Your task to perform on an android device: turn off notifications in google photos Image 0: 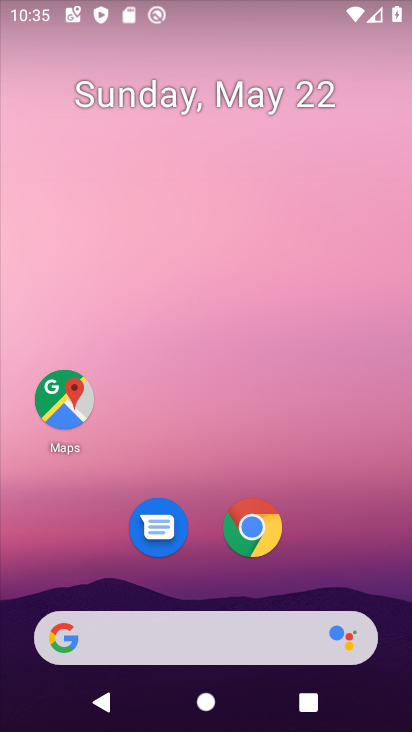
Step 0: drag from (373, 572) to (339, 145)
Your task to perform on an android device: turn off notifications in google photos Image 1: 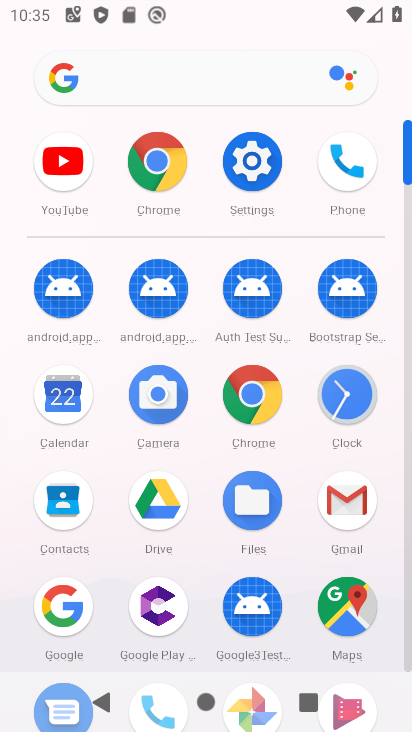
Step 1: click (412, 661)
Your task to perform on an android device: turn off notifications in google photos Image 2: 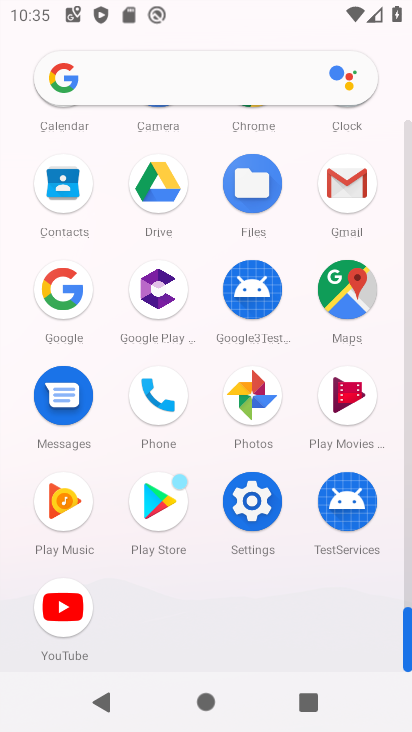
Step 2: click (166, 516)
Your task to perform on an android device: turn off notifications in google photos Image 3: 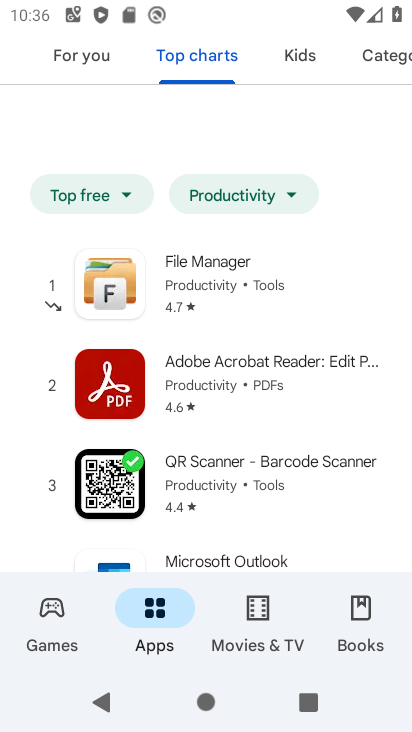
Step 3: press home button
Your task to perform on an android device: turn off notifications in google photos Image 4: 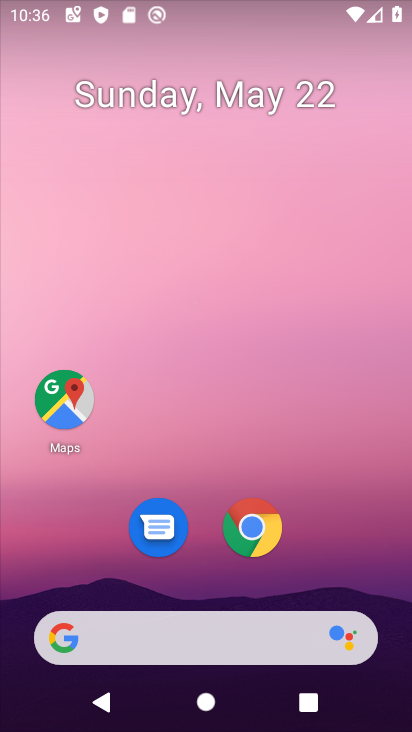
Step 4: drag from (328, 572) to (332, 203)
Your task to perform on an android device: turn off notifications in google photos Image 5: 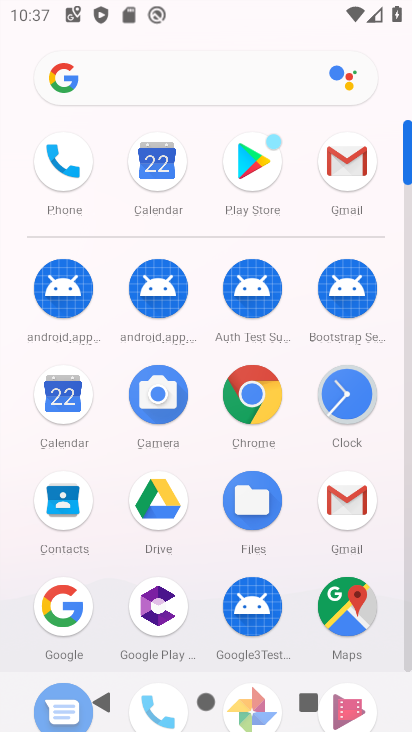
Step 5: click (404, 666)
Your task to perform on an android device: turn off notifications in google photos Image 6: 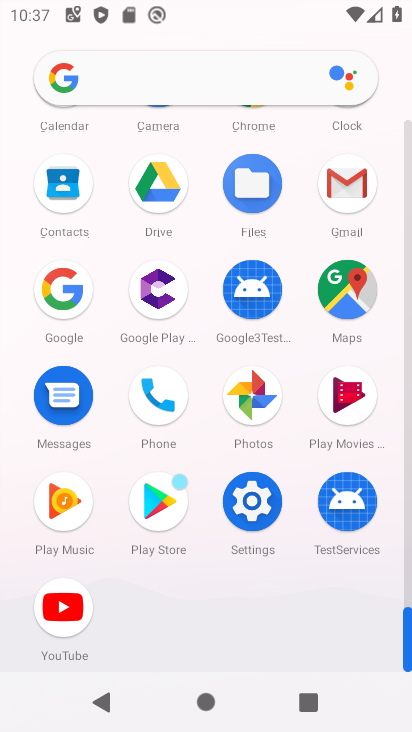
Step 6: click (263, 412)
Your task to perform on an android device: turn off notifications in google photos Image 7: 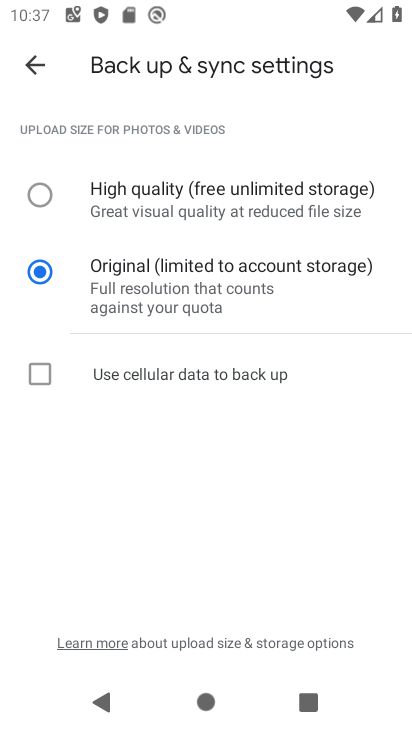
Step 7: click (19, 63)
Your task to perform on an android device: turn off notifications in google photos Image 8: 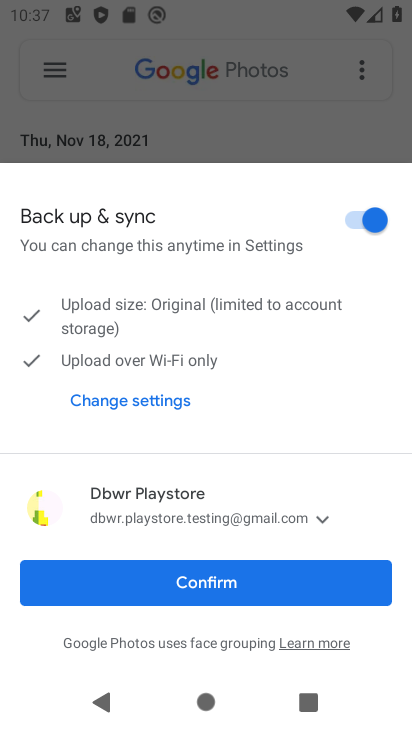
Step 8: click (170, 584)
Your task to perform on an android device: turn off notifications in google photos Image 9: 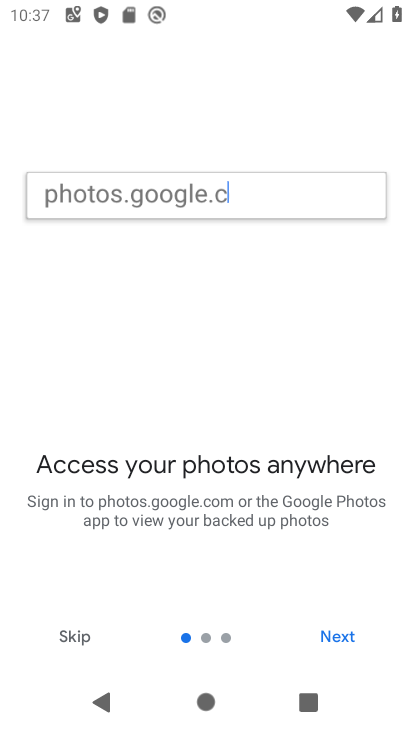
Step 9: click (336, 642)
Your task to perform on an android device: turn off notifications in google photos Image 10: 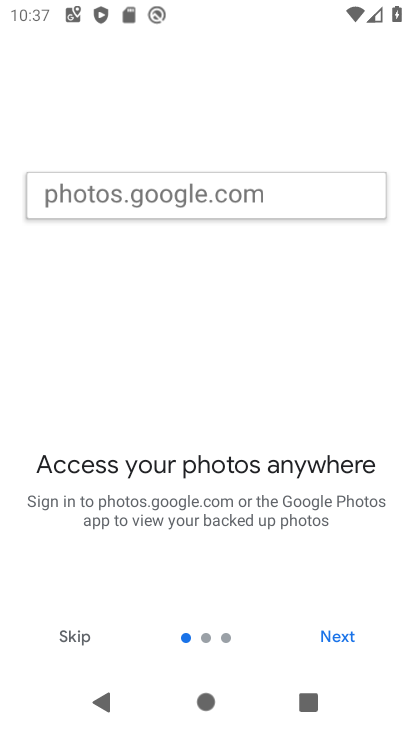
Step 10: click (336, 642)
Your task to perform on an android device: turn off notifications in google photos Image 11: 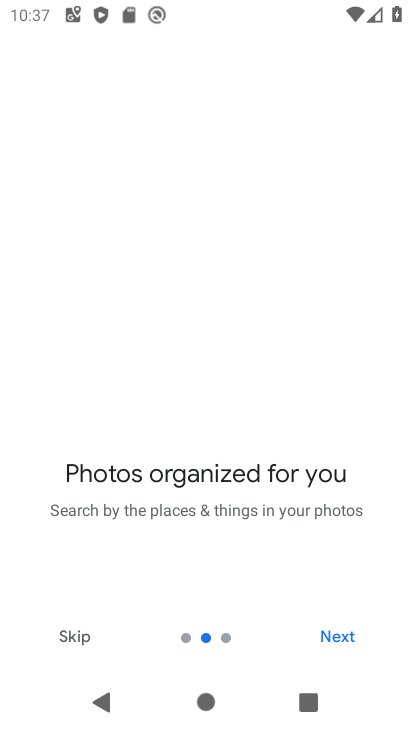
Step 11: click (336, 642)
Your task to perform on an android device: turn off notifications in google photos Image 12: 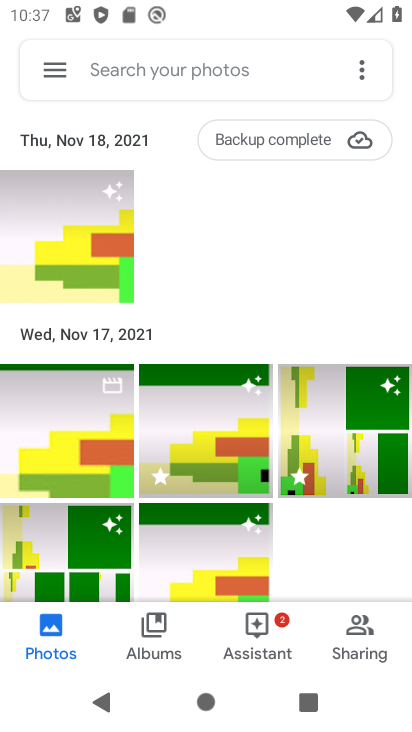
Step 12: click (336, 642)
Your task to perform on an android device: turn off notifications in google photos Image 13: 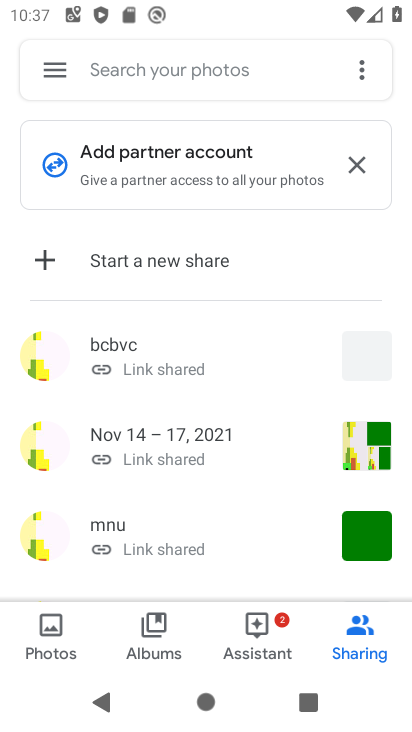
Step 13: click (78, 73)
Your task to perform on an android device: turn off notifications in google photos Image 14: 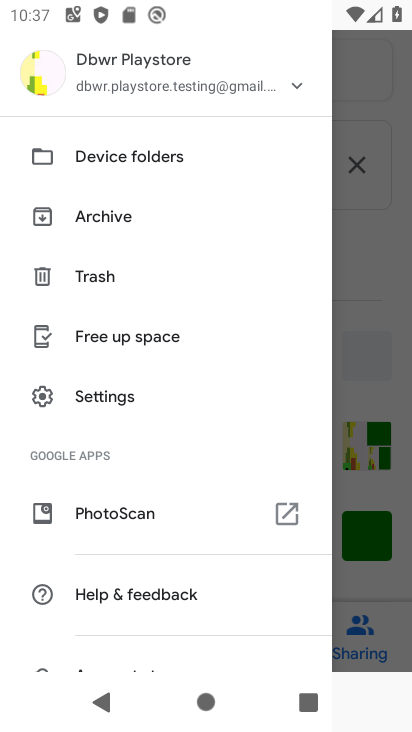
Step 14: click (121, 405)
Your task to perform on an android device: turn off notifications in google photos Image 15: 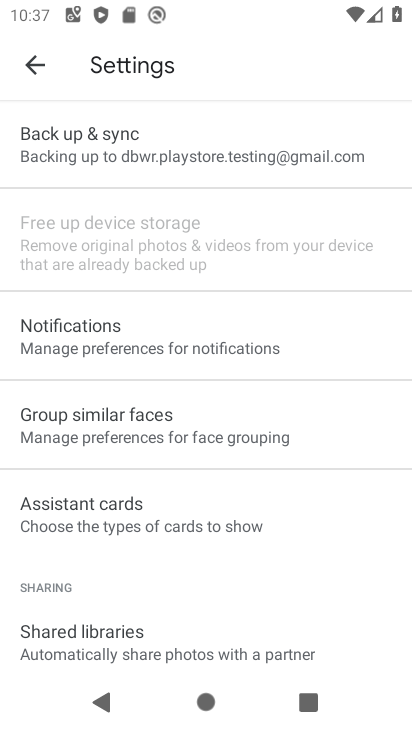
Step 15: click (200, 367)
Your task to perform on an android device: turn off notifications in google photos Image 16: 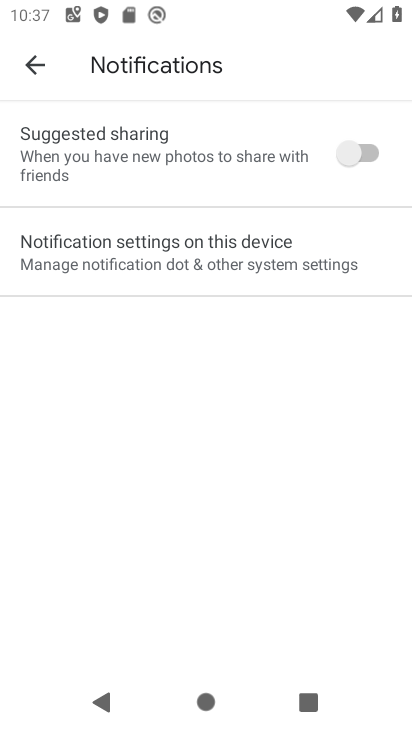
Step 16: task complete